Your task to perform on an android device: Open Google Chrome Image 0: 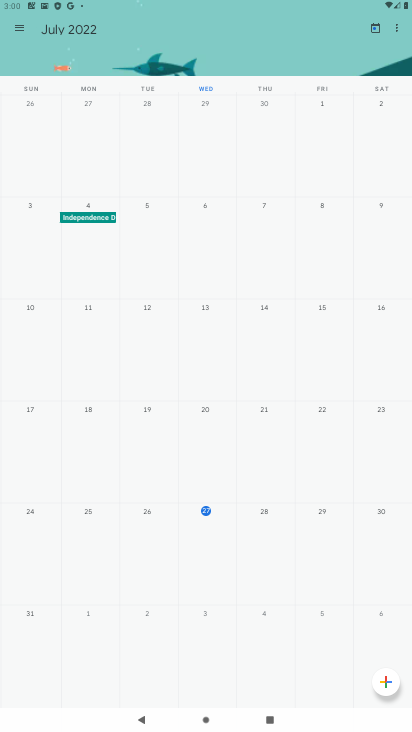
Step 0: press home button
Your task to perform on an android device: Open Google Chrome Image 1: 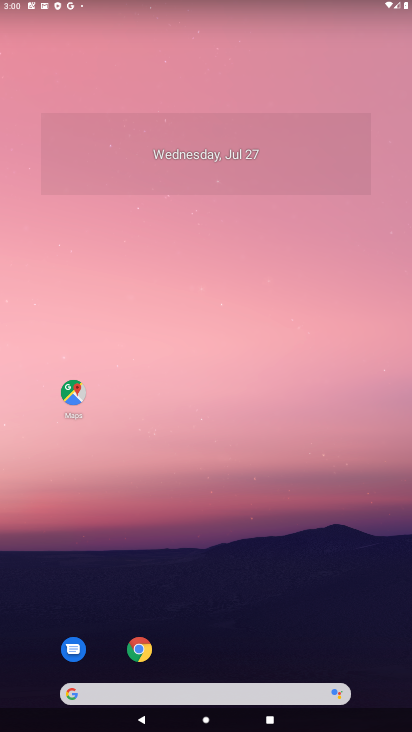
Step 1: drag from (261, 645) to (259, 204)
Your task to perform on an android device: Open Google Chrome Image 2: 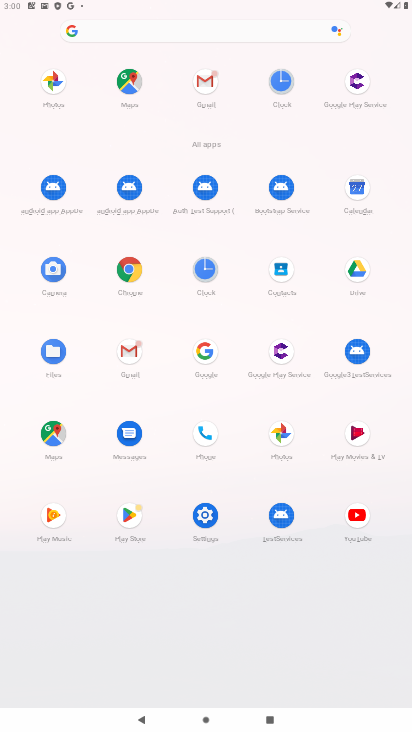
Step 2: click (129, 267)
Your task to perform on an android device: Open Google Chrome Image 3: 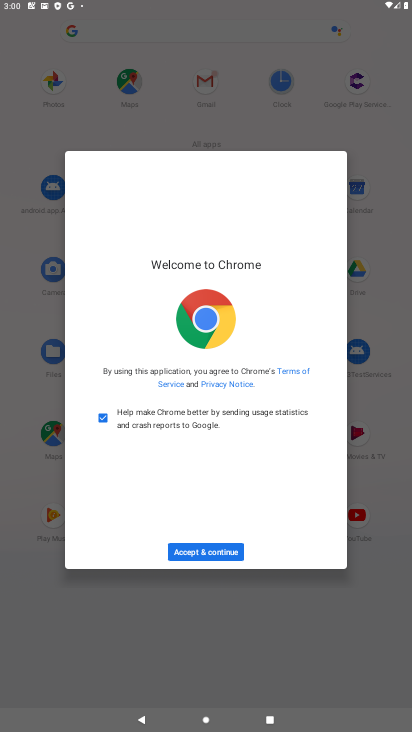
Step 3: click (224, 553)
Your task to perform on an android device: Open Google Chrome Image 4: 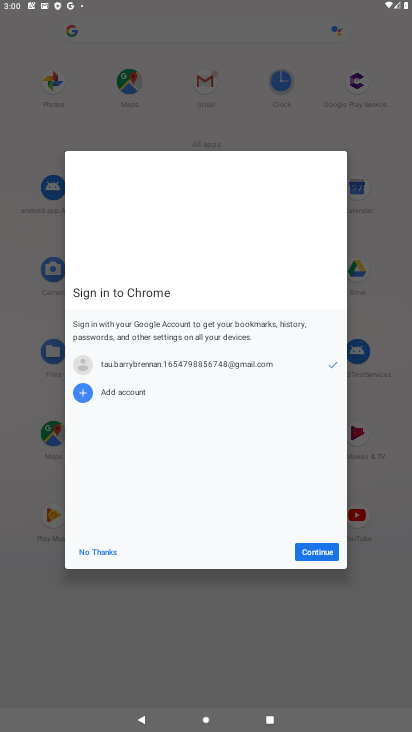
Step 4: click (315, 553)
Your task to perform on an android device: Open Google Chrome Image 5: 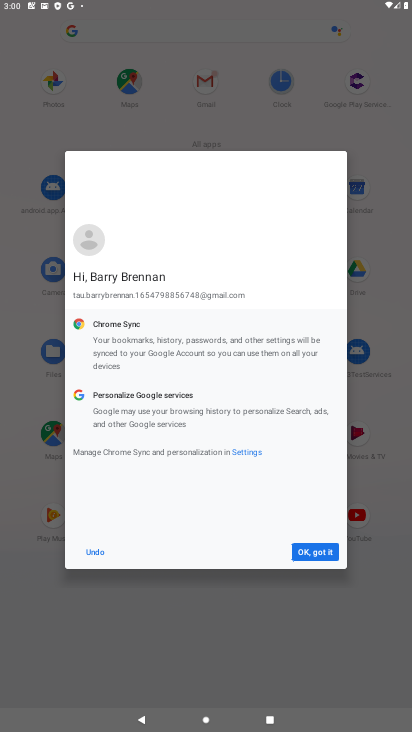
Step 5: click (315, 553)
Your task to perform on an android device: Open Google Chrome Image 6: 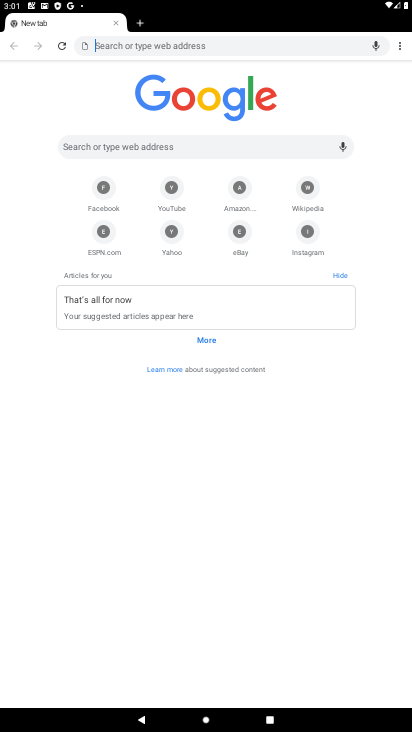
Step 6: task complete